Your task to perform on an android device: open device folders in google photos Image 0: 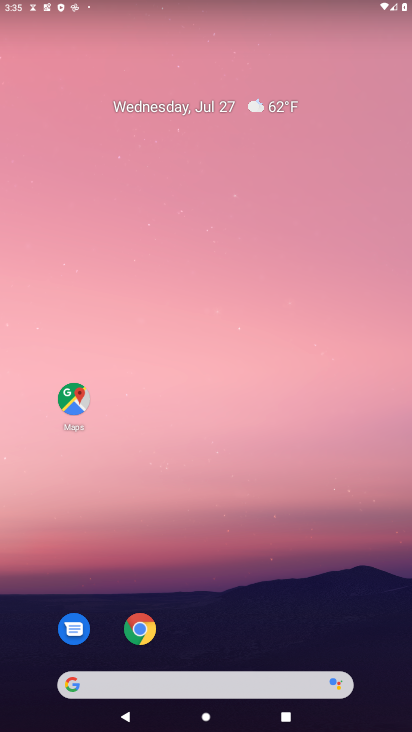
Step 0: drag from (189, 684) to (409, 45)
Your task to perform on an android device: open device folders in google photos Image 1: 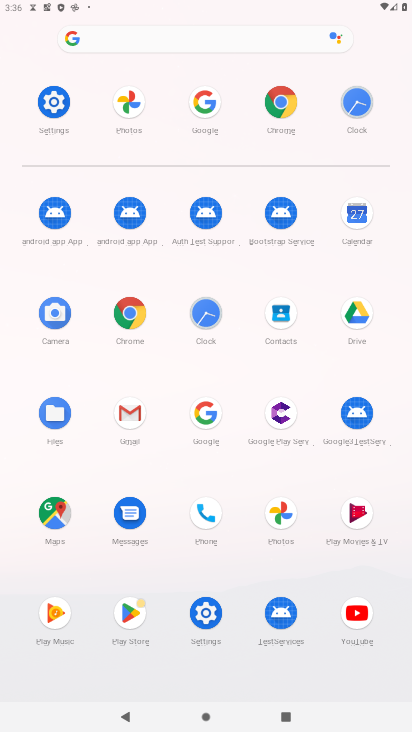
Step 1: click (285, 508)
Your task to perform on an android device: open device folders in google photos Image 2: 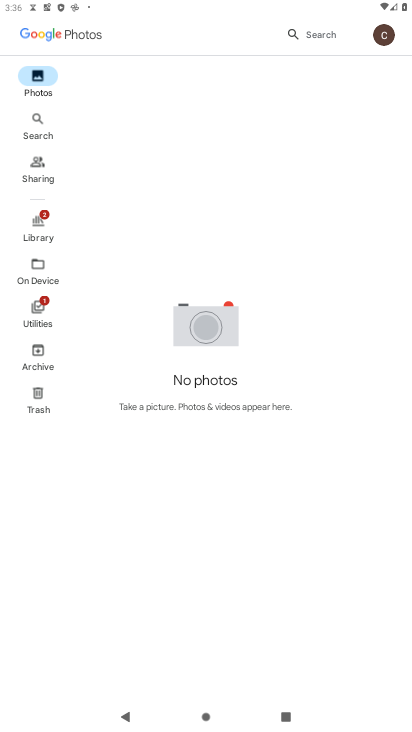
Step 2: click (37, 272)
Your task to perform on an android device: open device folders in google photos Image 3: 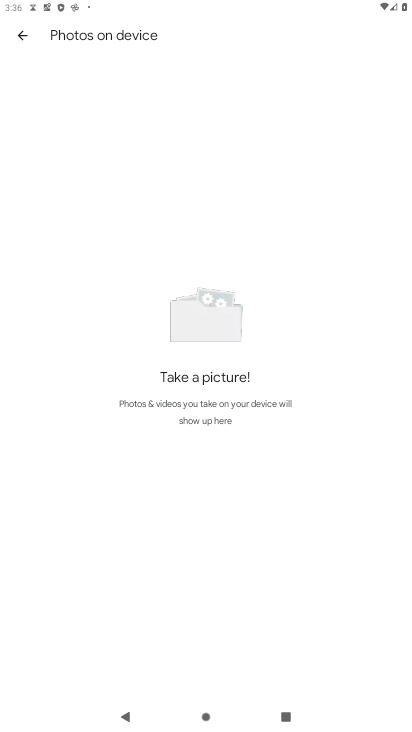
Step 3: task complete